Your task to perform on an android device: turn off priority inbox in the gmail app Image 0: 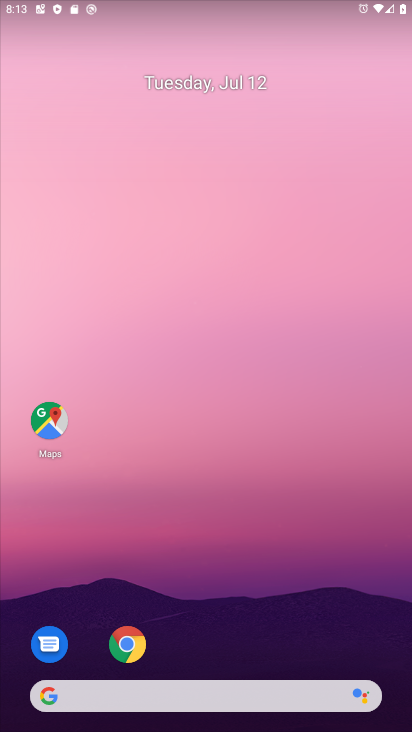
Step 0: drag from (246, 584) to (235, 290)
Your task to perform on an android device: turn off priority inbox in the gmail app Image 1: 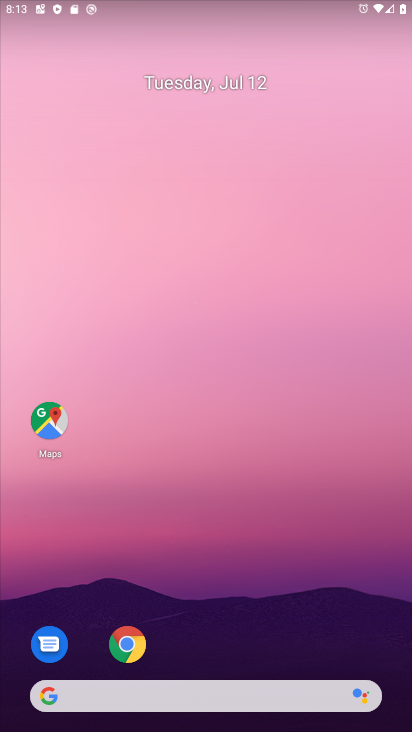
Step 1: drag from (183, 580) to (183, 247)
Your task to perform on an android device: turn off priority inbox in the gmail app Image 2: 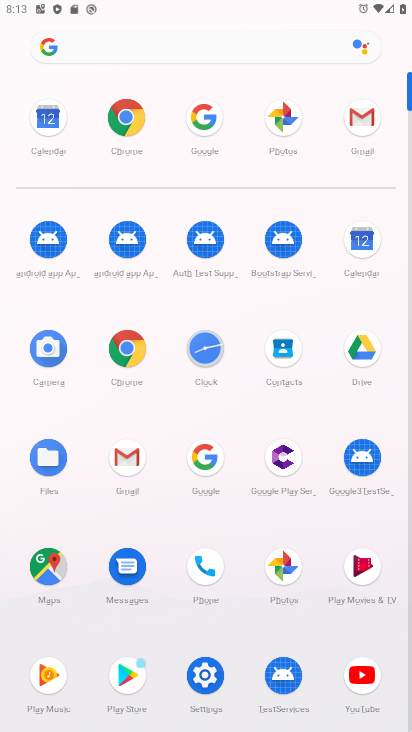
Step 2: click (362, 125)
Your task to perform on an android device: turn off priority inbox in the gmail app Image 3: 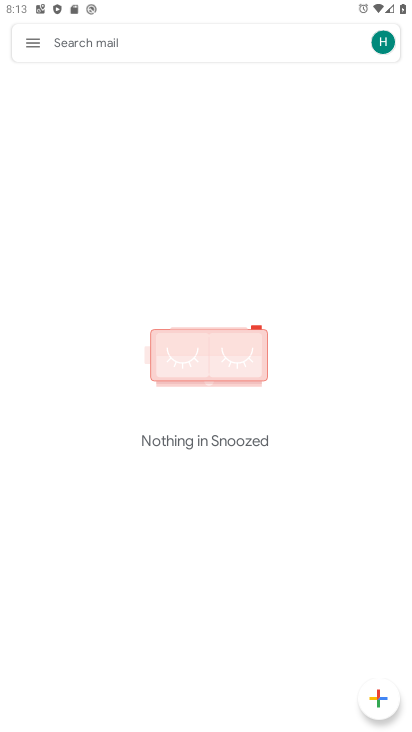
Step 3: click (31, 40)
Your task to perform on an android device: turn off priority inbox in the gmail app Image 4: 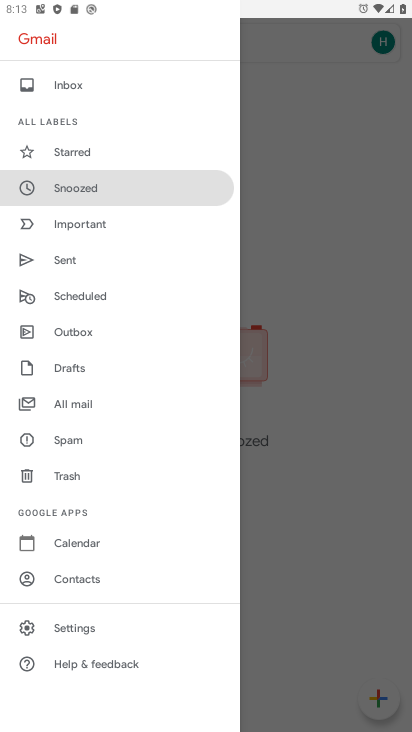
Step 4: click (97, 622)
Your task to perform on an android device: turn off priority inbox in the gmail app Image 5: 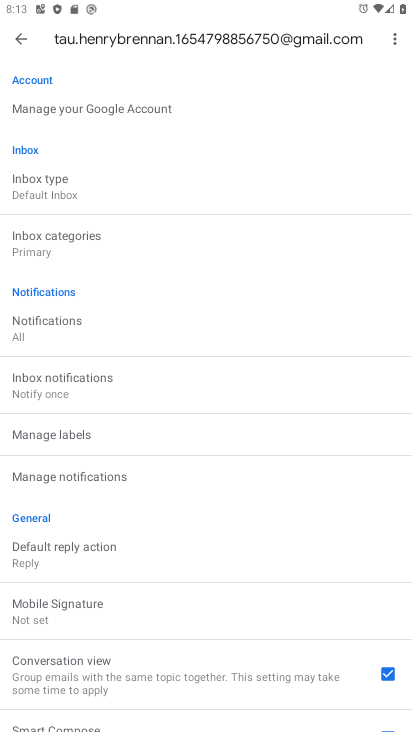
Step 5: click (48, 189)
Your task to perform on an android device: turn off priority inbox in the gmail app Image 6: 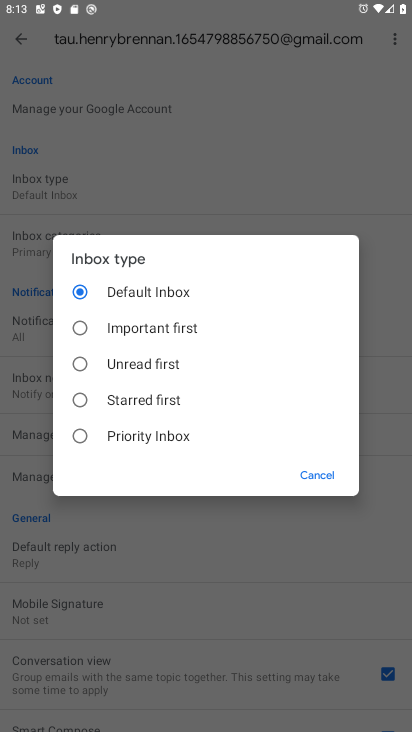
Step 6: click (308, 474)
Your task to perform on an android device: turn off priority inbox in the gmail app Image 7: 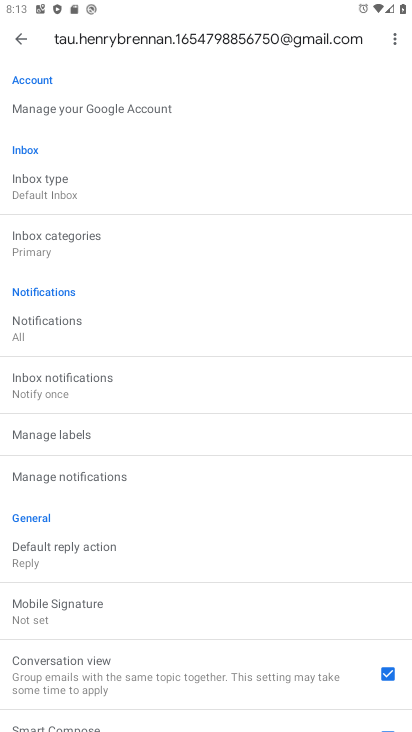
Step 7: task complete